Your task to perform on an android device: Search for apple airpods on costco, select the first entry, and add it to the cart. Image 0: 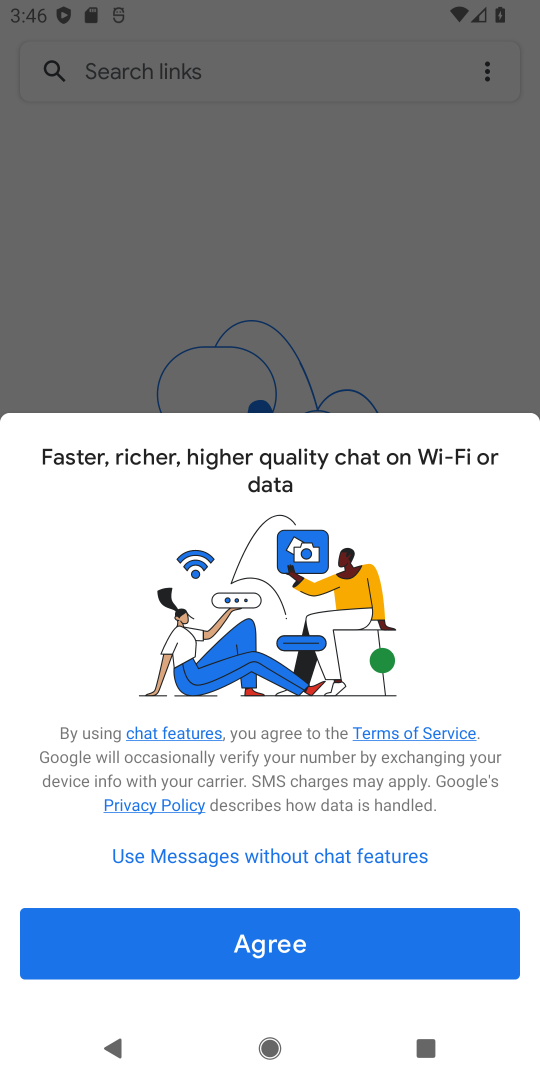
Step 0: press home button
Your task to perform on an android device: Search for apple airpods on costco, select the first entry, and add it to the cart. Image 1: 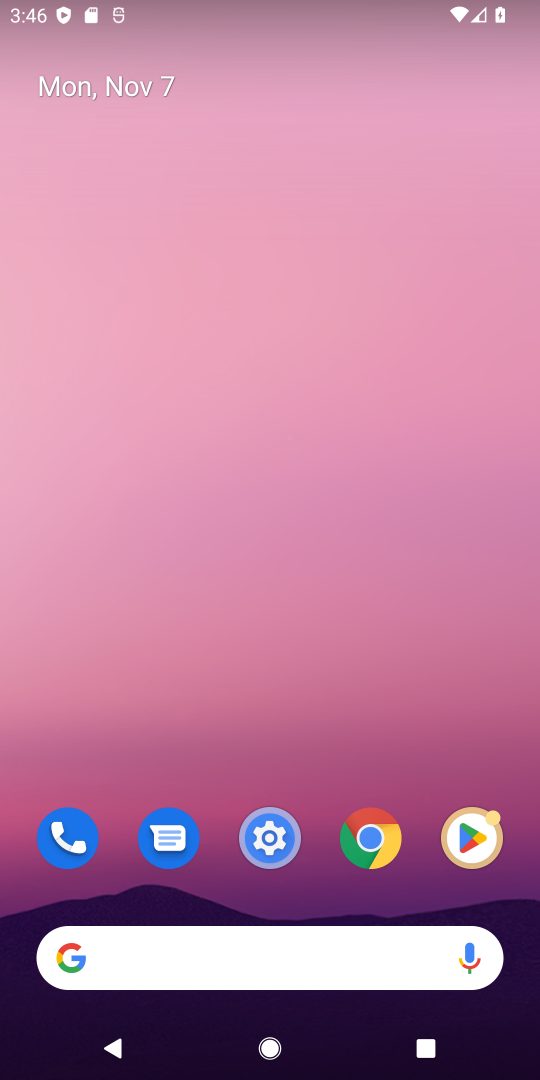
Step 1: click (364, 836)
Your task to perform on an android device: Search for apple airpods on costco, select the first entry, and add it to the cart. Image 2: 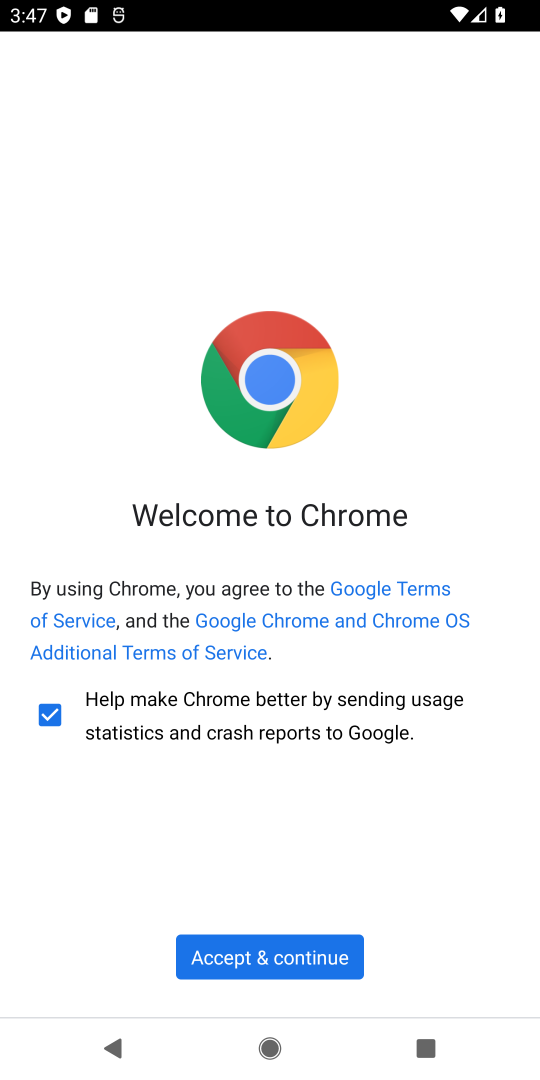
Step 2: click (280, 948)
Your task to perform on an android device: Search for apple airpods on costco, select the first entry, and add it to the cart. Image 3: 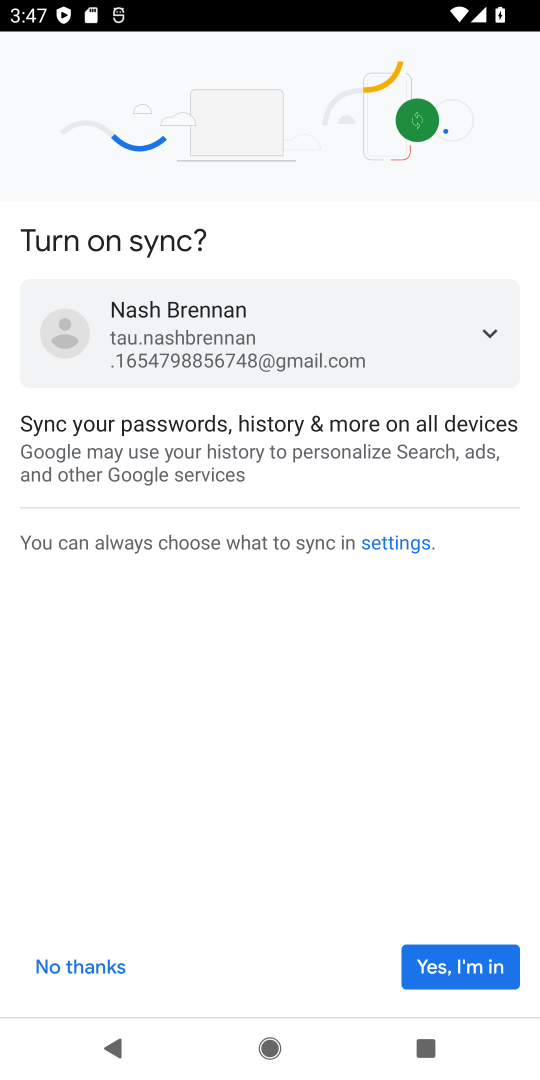
Step 3: click (465, 970)
Your task to perform on an android device: Search for apple airpods on costco, select the first entry, and add it to the cart. Image 4: 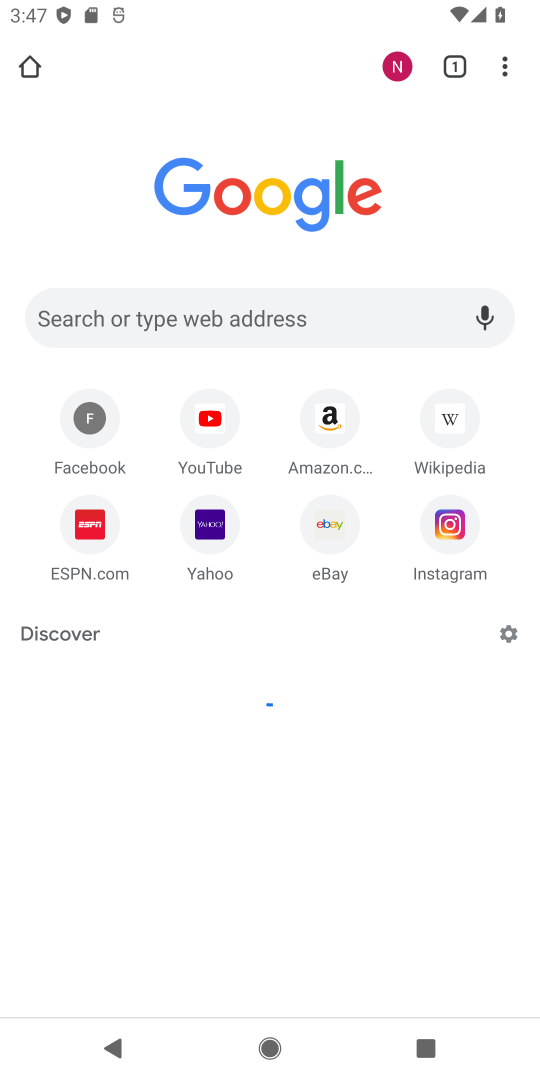
Step 4: click (202, 315)
Your task to perform on an android device: Search for apple airpods on costco, select the first entry, and add it to the cart. Image 5: 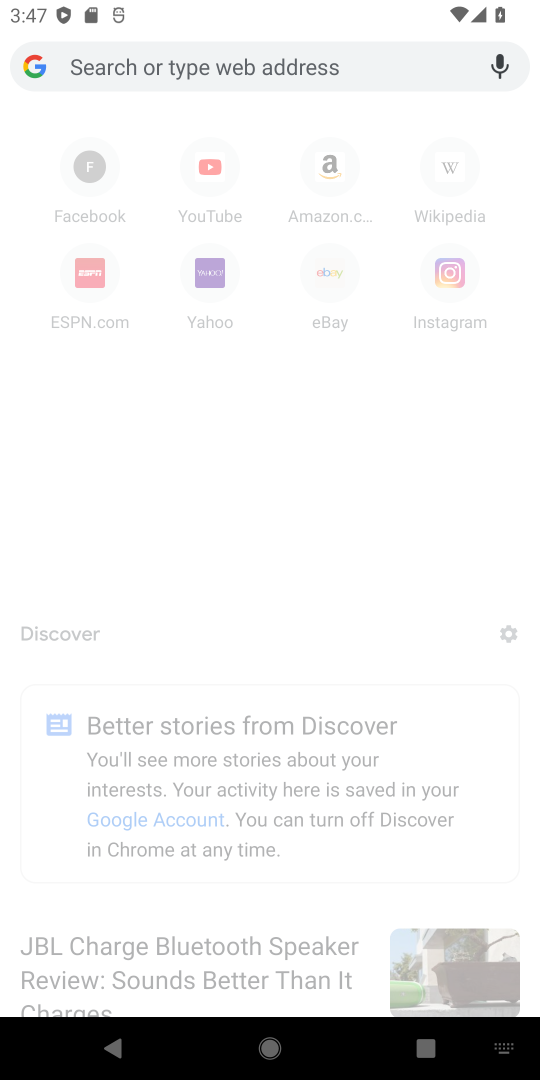
Step 5: type "costco"
Your task to perform on an android device: Search for apple airpods on costco, select the first entry, and add it to the cart. Image 6: 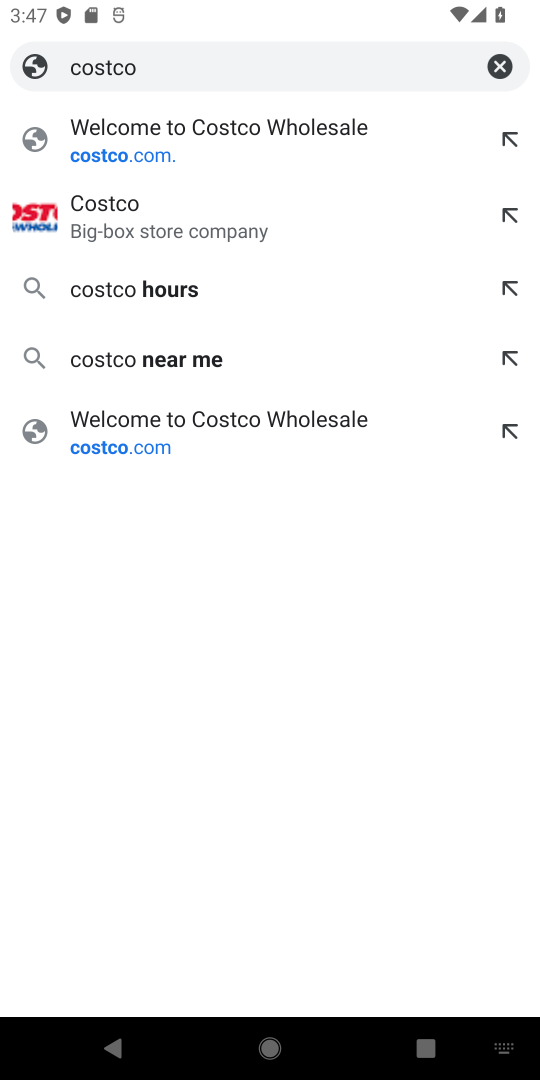
Step 6: click (191, 138)
Your task to perform on an android device: Search for apple airpods on costco, select the first entry, and add it to the cart. Image 7: 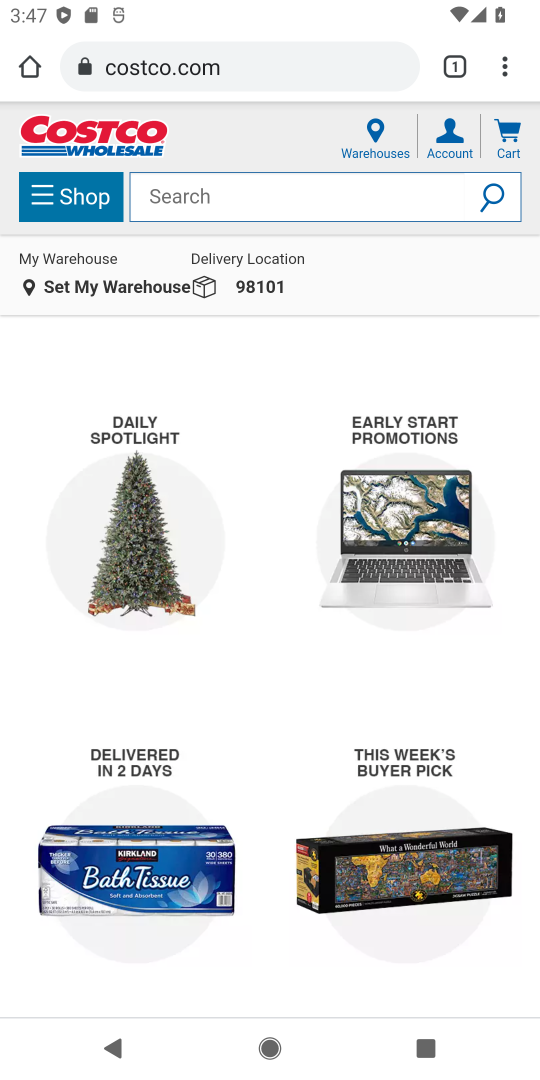
Step 7: click (182, 191)
Your task to perform on an android device: Search for apple airpods on costco, select the first entry, and add it to the cart. Image 8: 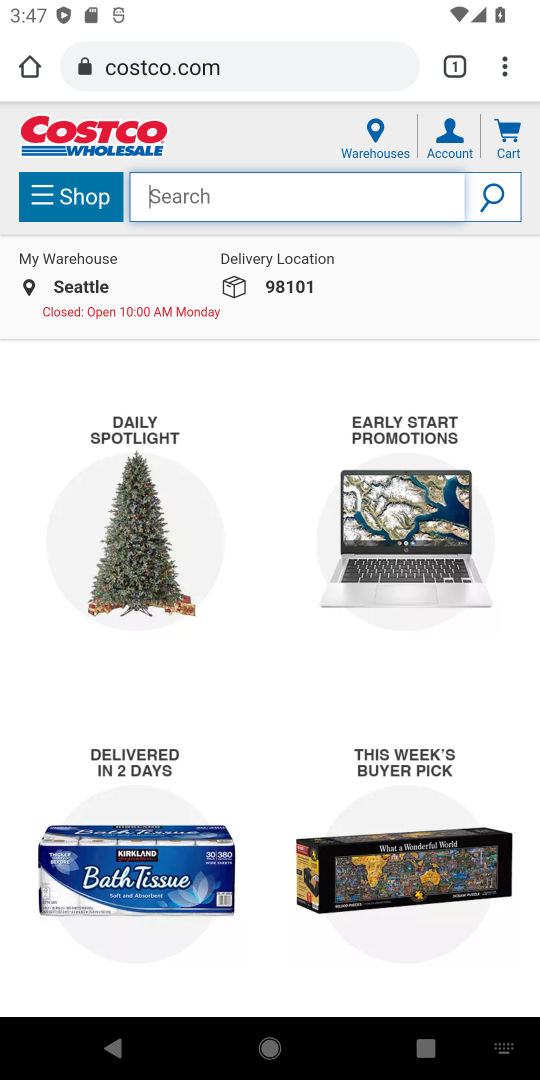
Step 8: type "apple airpods"
Your task to perform on an android device: Search for apple airpods on costco, select the first entry, and add it to the cart. Image 9: 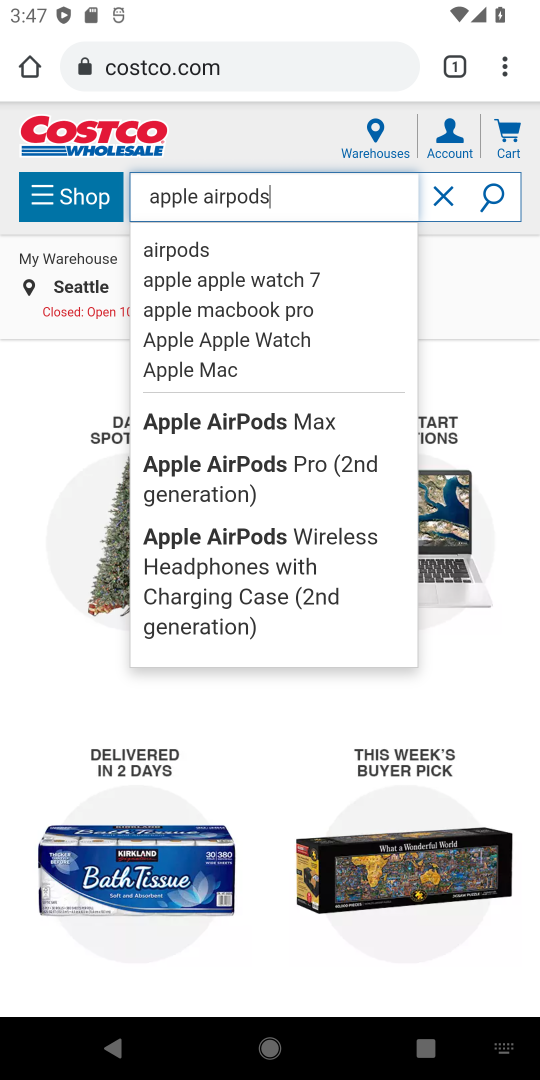
Step 9: click (251, 423)
Your task to perform on an android device: Search for apple airpods on costco, select the first entry, and add it to the cart. Image 10: 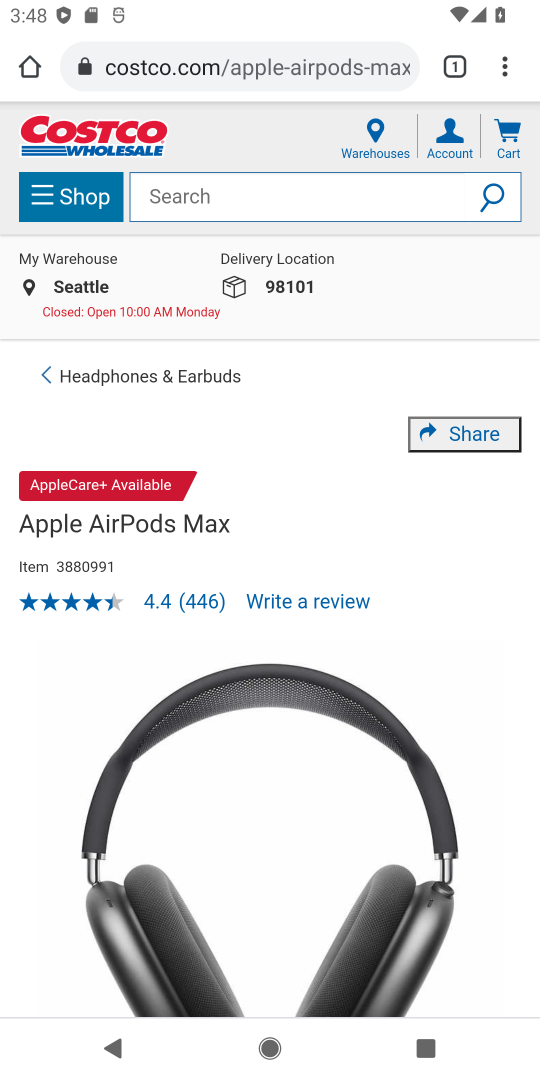
Step 10: drag from (327, 800) to (523, 649)
Your task to perform on an android device: Search for apple airpods on costco, select the first entry, and add it to the cart. Image 11: 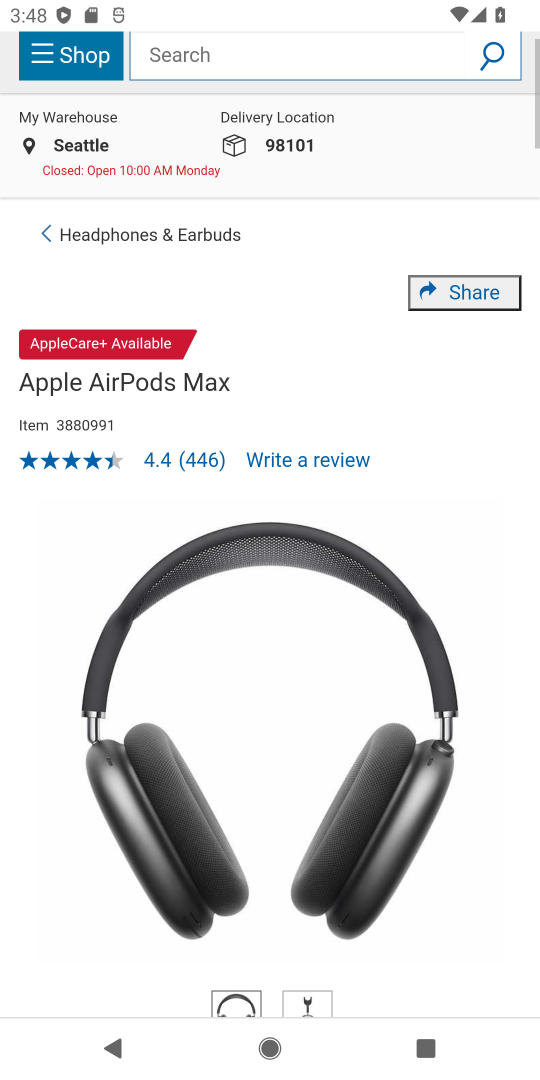
Step 11: drag from (305, 802) to (397, 110)
Your task to perform on an android device: Search for apple airpods on costco, select the first entry, and add it to the cart. Image 12: 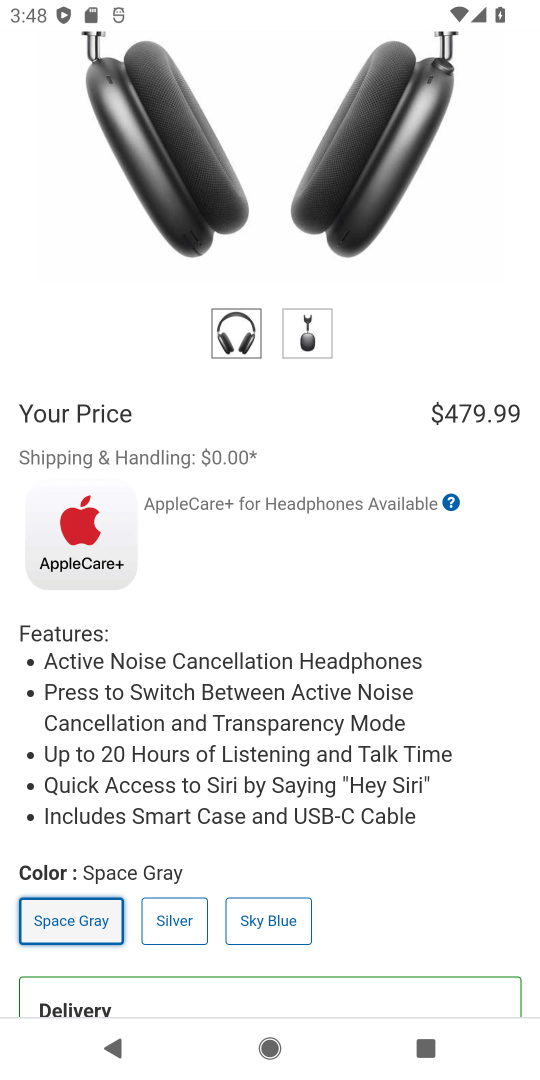
Step 12: drag from (231, 789) to (484, 15)
Your task to perform on an android device: Search for apple airpods on costco, select the first entry, and add it to the cart. Image 13: 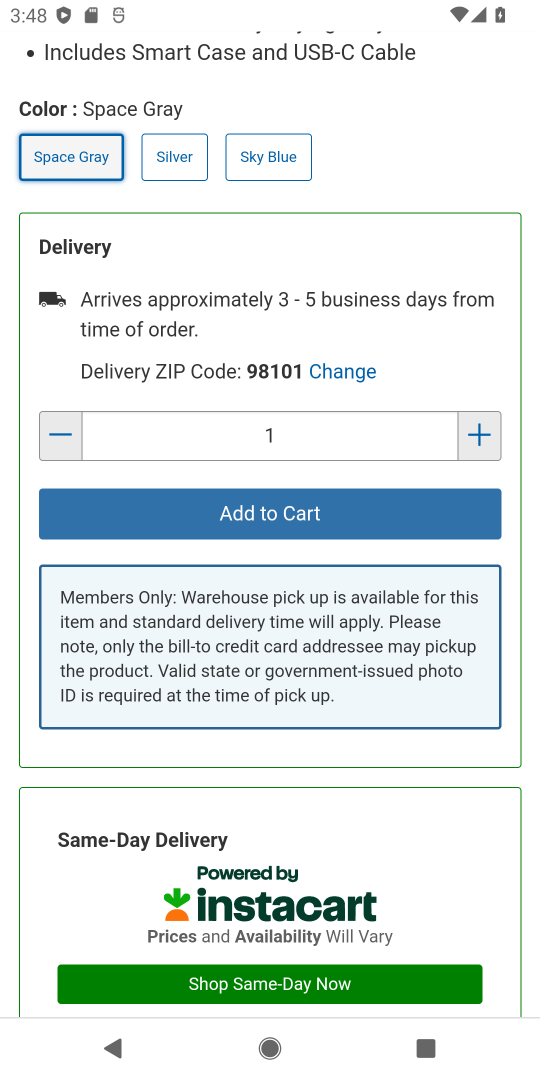
Step 13: click (286, 523)
Your task to perform on an android device: Search for apple airpods on costco, select the first entry, and add it to the cart. Image 14: 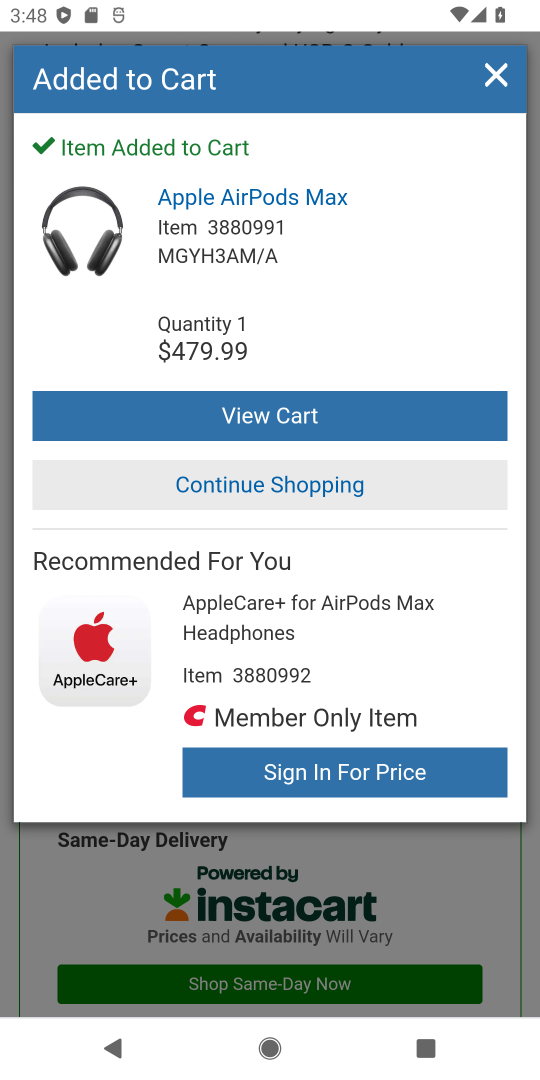
Step 14: task complete